Your task to perform on an android device: open app "Spotify" (install if not already installed) Image 0: 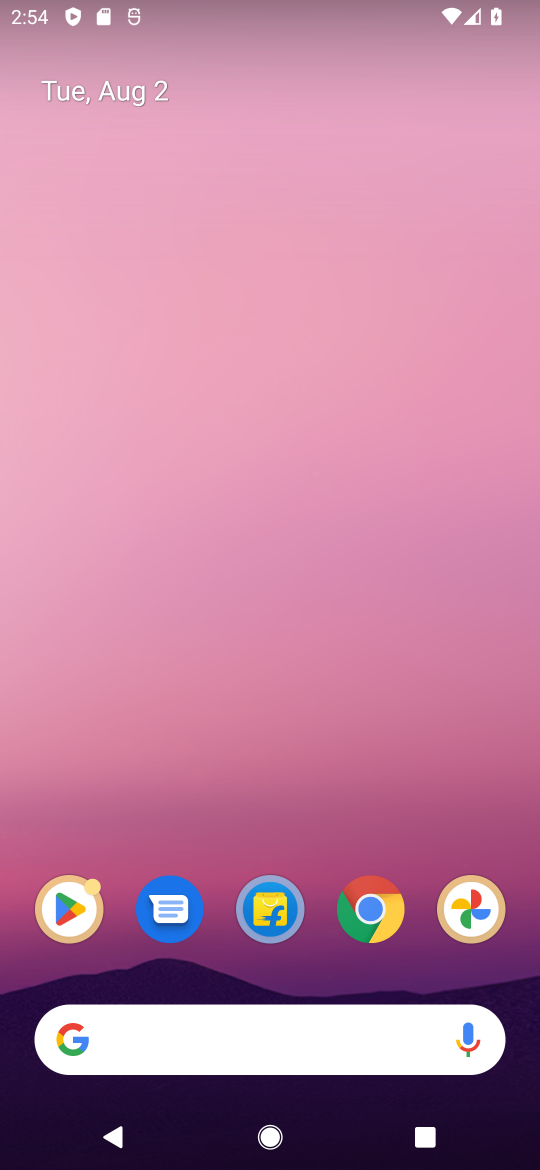
Step 0: click (75, 906)
Your task to perform on an android device: open app "Spotify" (install if not already installed) Image 1: 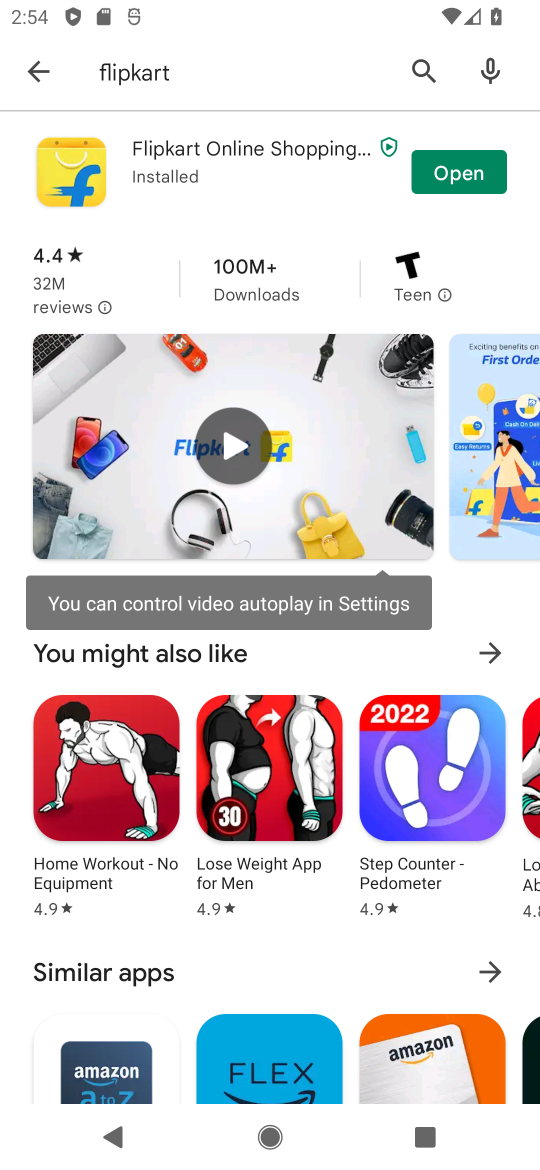
Step 1: click (418, 68)
Your task to perform on an android device: open app "Spotify" (install if not already installed) Image 2: 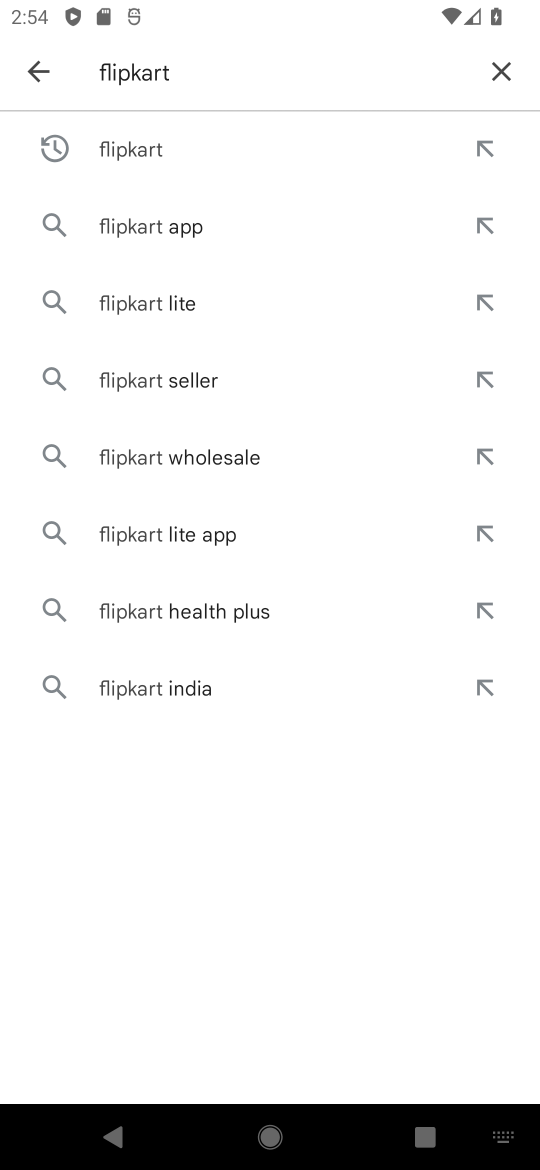
Step 2: click (508, 63)
Your task to perform on an android device: open app "Spotify" (install if not already installed) Image 3: 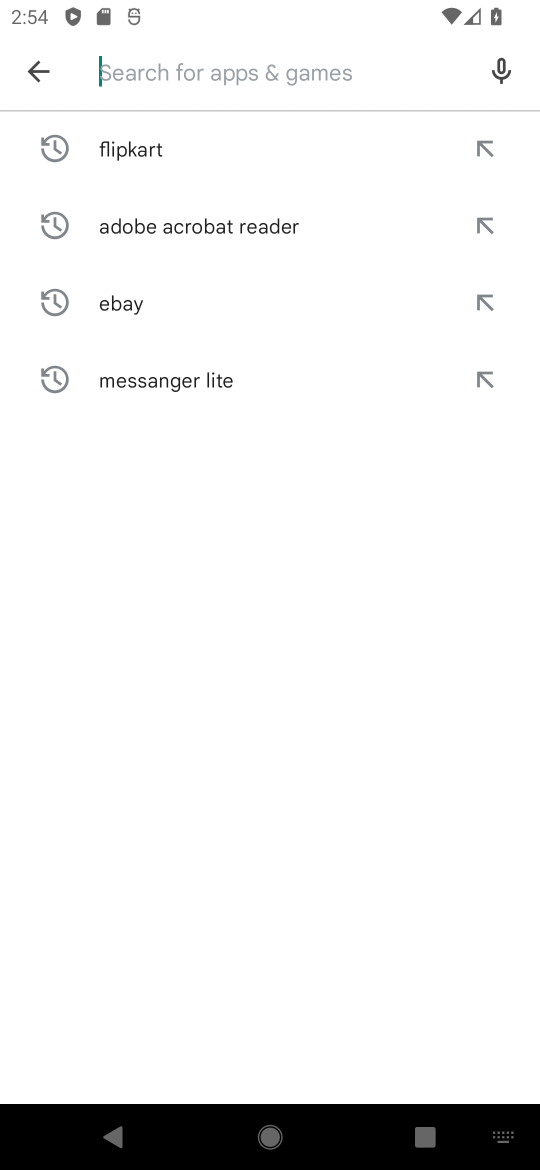
Step 3: type "Spotify"
Your task to perform on an android device: open app "Spotify" (install if not already installed) Image 4: 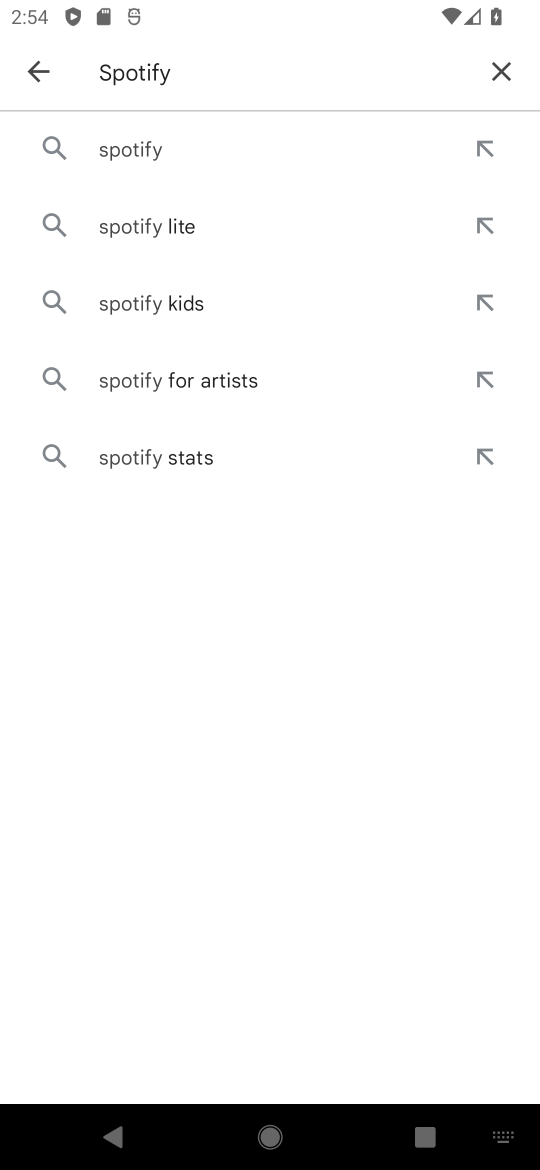
Step 4: click (116, 165)
Your task to perform on an android device: open app "Spotify" (install if not already installed) Image 5: 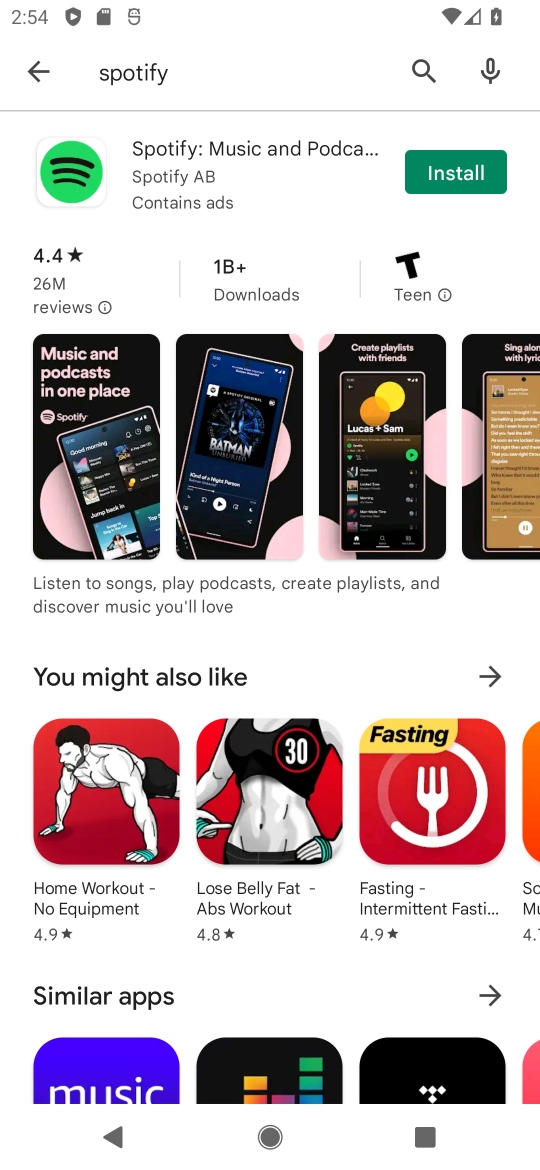
Step 5: click (451, 177)
Your task to perform on an android device: open app "Spotify" (install if not already installed) Image 6: 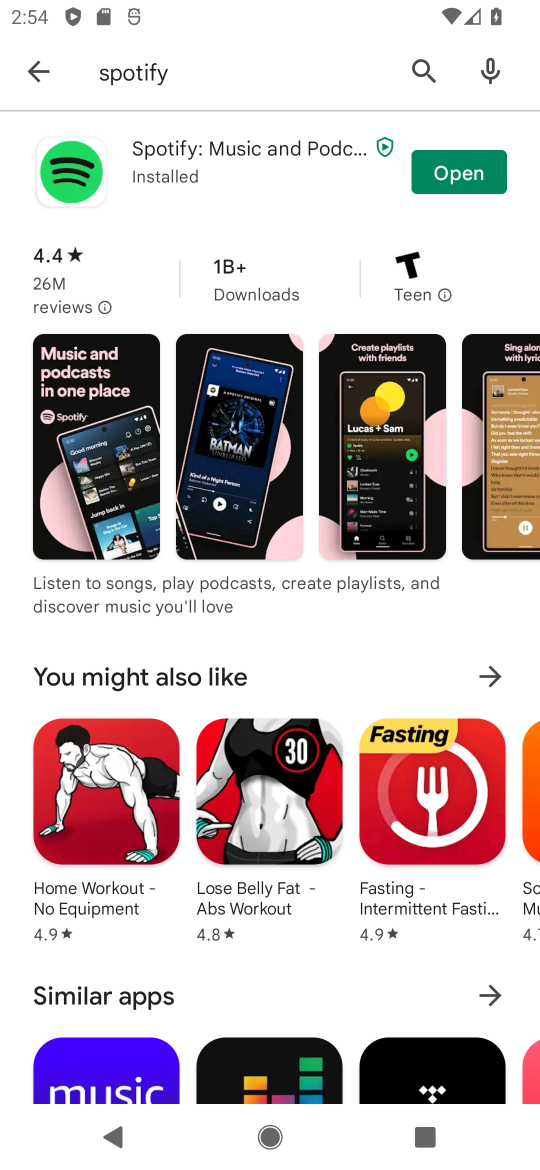
Step 6: click (430, 175)
Your task to perform on an android device: open app "Spotify" (install if not already installed) Image 7: 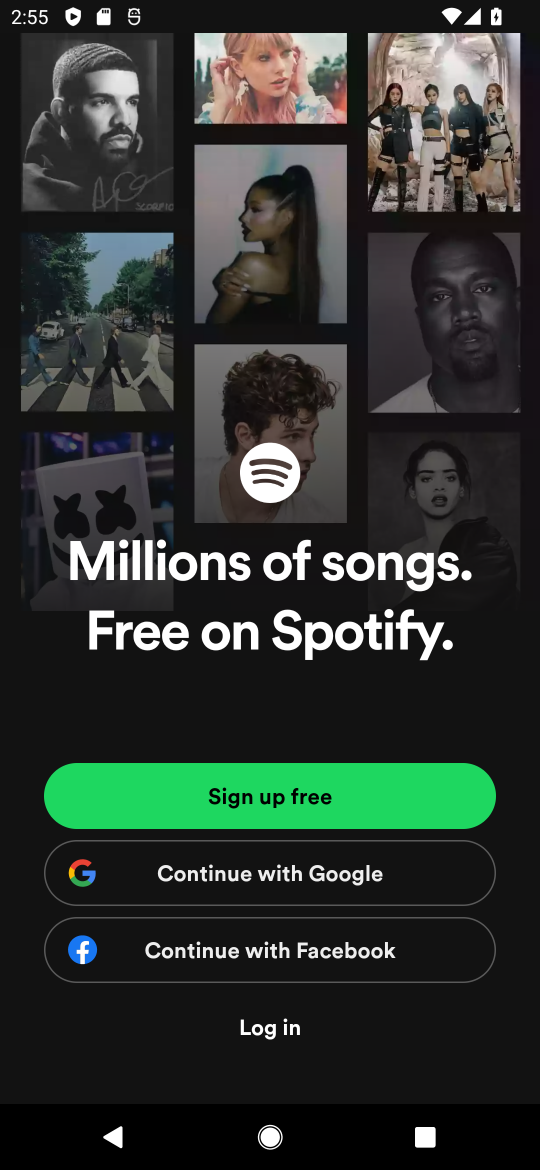
Step 7: task complete